Your task to perform on an android device: check the backup settings in the google photos Image 0: 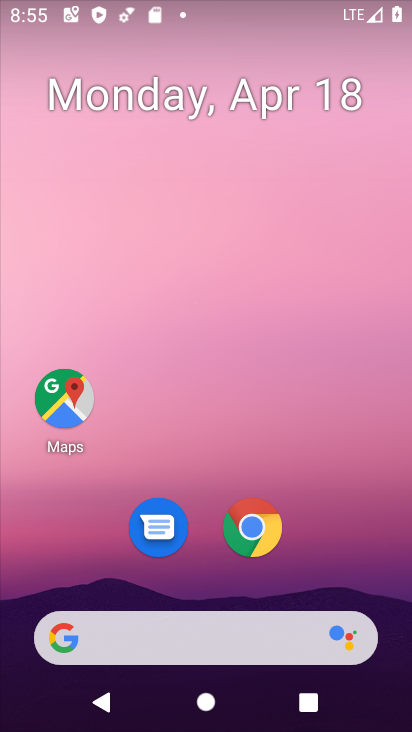
Step 0: drag from (351, 514) to (343, 33)
Your task to perform on an android device: check the backup settings in the google photos Image 1: 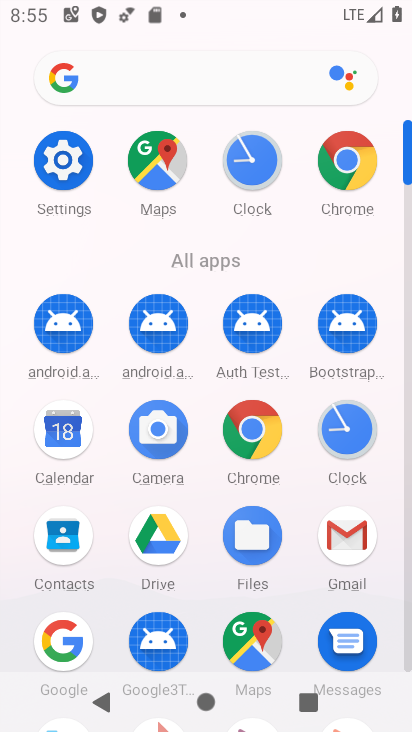
Step 1: drag from (13, 590) to (4, 227)
Your task to perform on an android device: check the backup settings in the google photos Image 2: 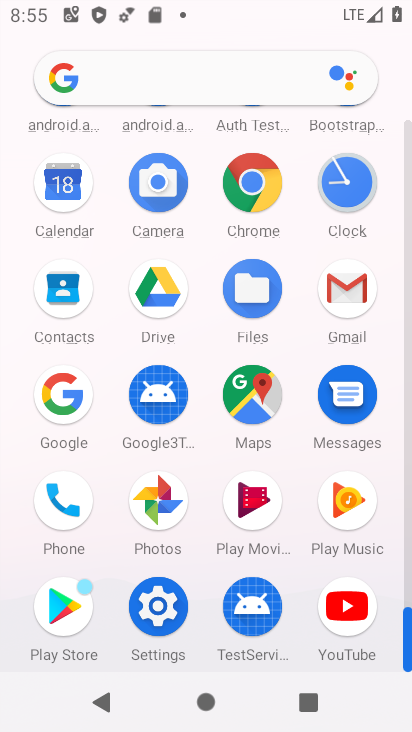
Step 2: click (149, 493)
Your task to perform on an android device: check the backup settings in the google photos Image 3: 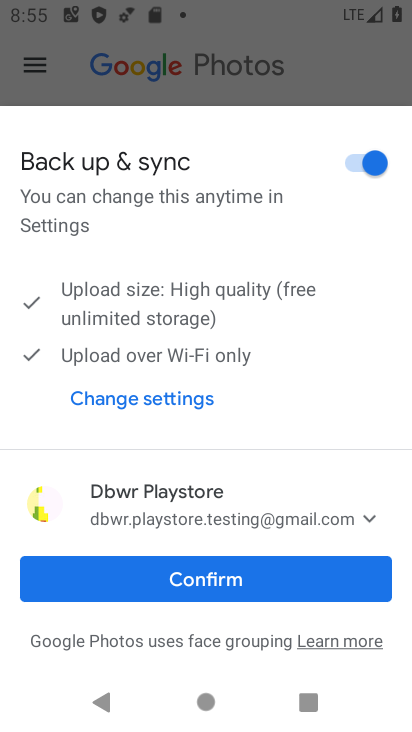
Step 3: click (236, 583)
Your task to perform on an android device: check the backup settings in the google photos Image 4: 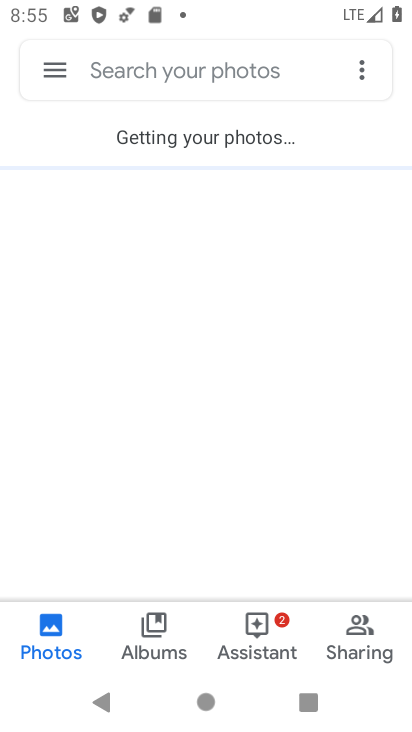
Step 4: click (58, 68)
Your task to perform on an android device: check the backup settings in the google photos Image 5: 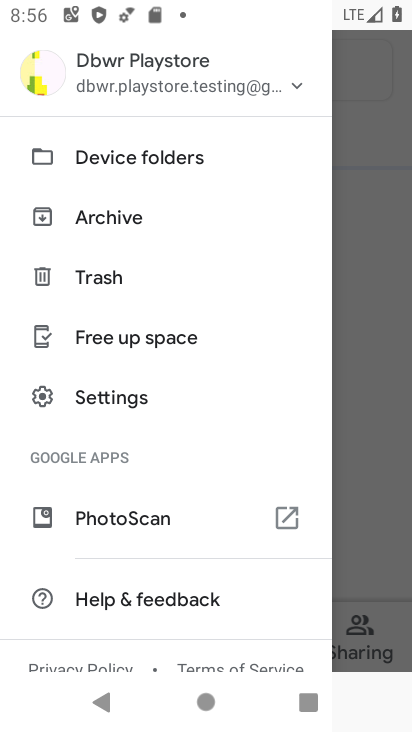
Step 5: drag from (212, 457) to (205, 213)
Your task to perform on an android device: check the backup settings in the google photos Image 6: 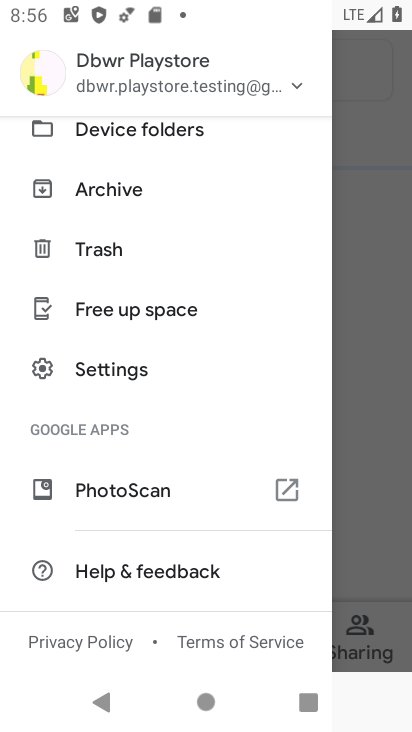
Step 6: click (143, 373)
Your task to perform on an android device: check the backup settings in the google photos Image 7: 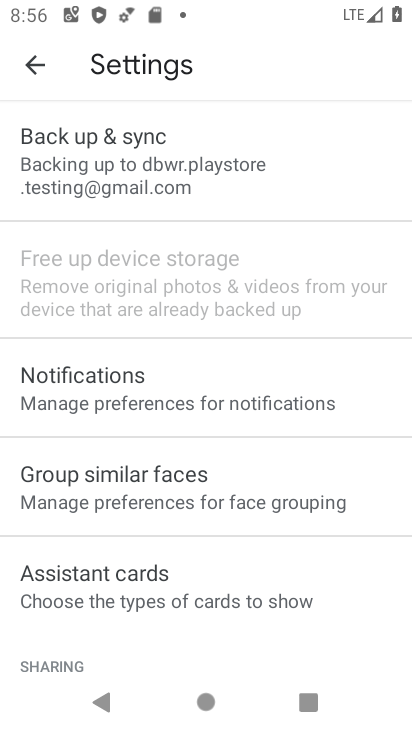
Step 7: click (267, 190)
Your task to perform on an android device: check the backup settings in the google photos Image 8: 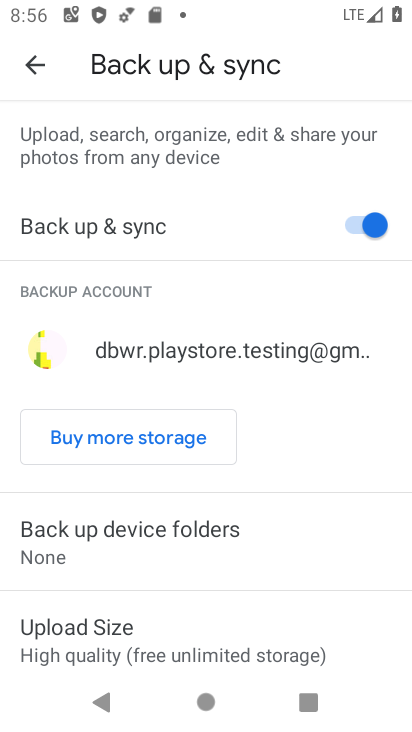
Step 8: task complete